Your task to perform on an android device: Check the news Image 0: 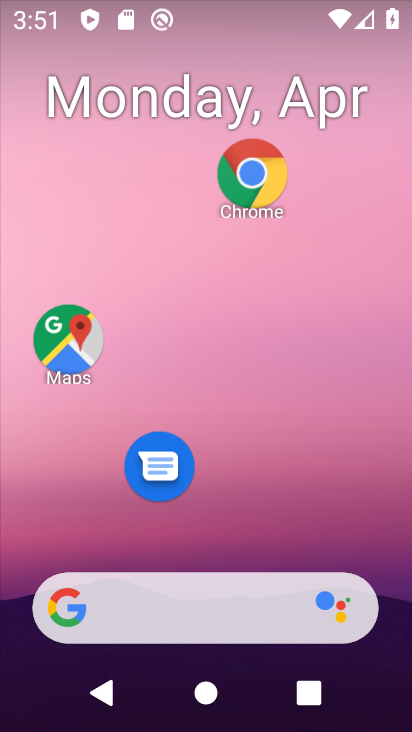
Step 0: click (271, 199)
Your task to perform on an android device: Check the news Image 1: 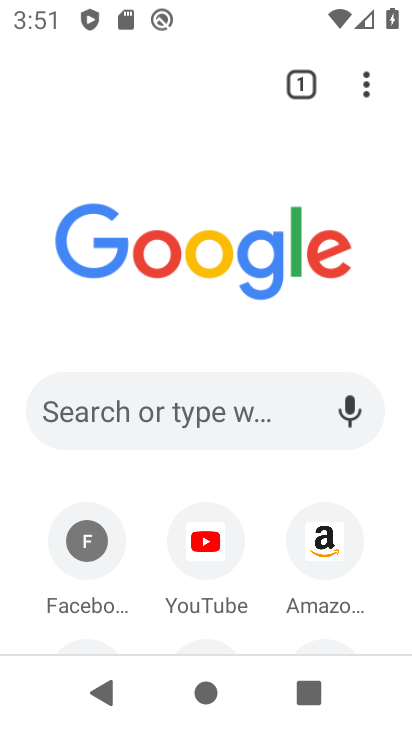
Step 1: click (270, 411)
Your task to perform on an android device: Check the news Image 2: 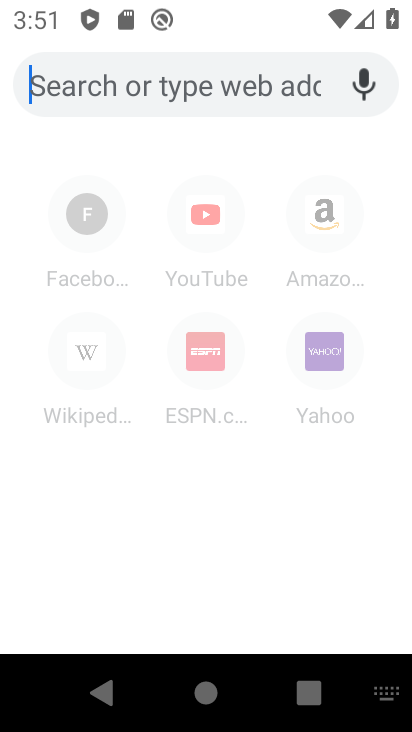
Step 2: type "news"
Your task to perform on an android device: Check the news Image 3: 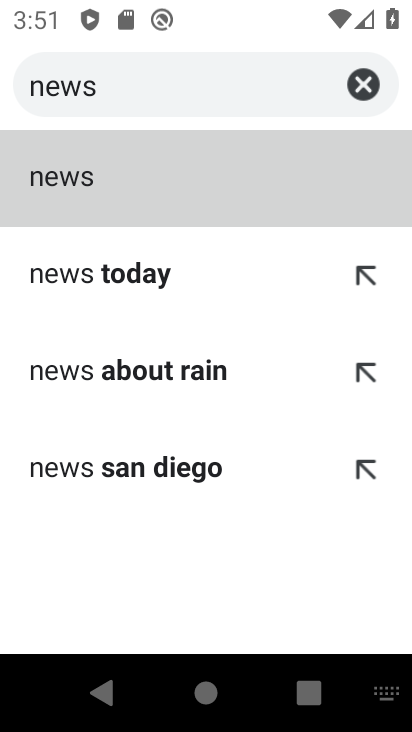
Step 3: click (65, 179)
Your task to perform on an android device: Check the news Image 4: 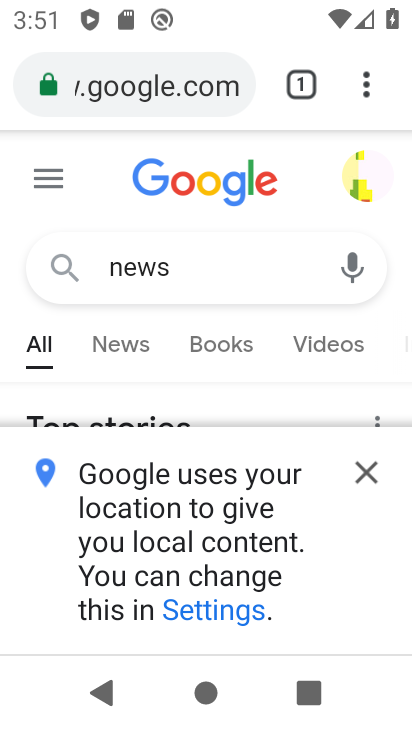
Step 4: click (355, 471)
Your task to perform on an android device: Check the news Image 5: 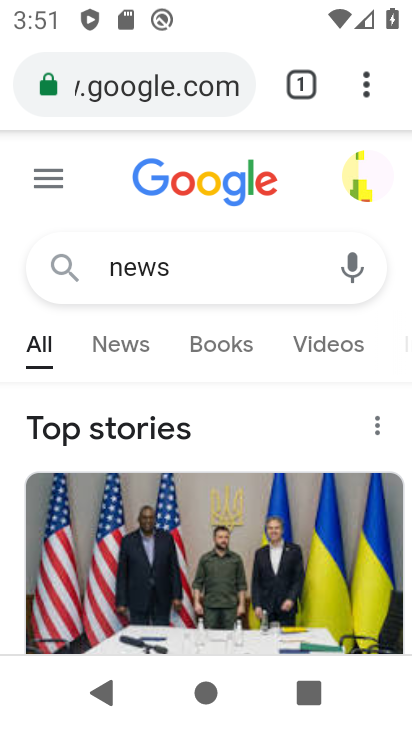
Step 5: task complete